Your task to perform on an android device: Open Chrome and go to the settings page Image 0: 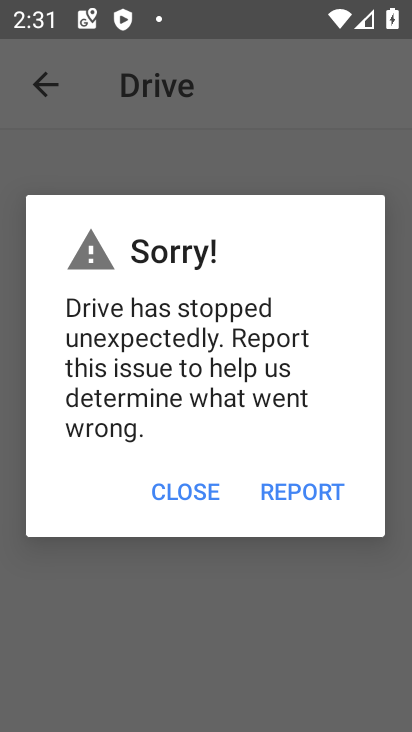
Step 0: press back button
Your task to perform on an android device: Open Chrome and go to the settings page Image 1: 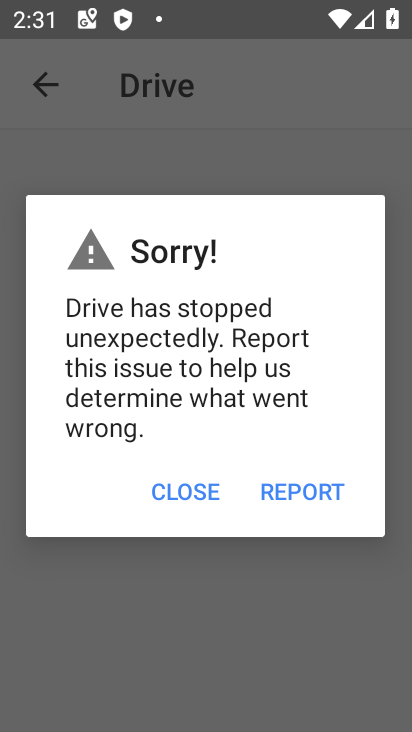
Step 1: press home button
Your task to perform on an android device: Open Chrome and go to the settings page Image 2: 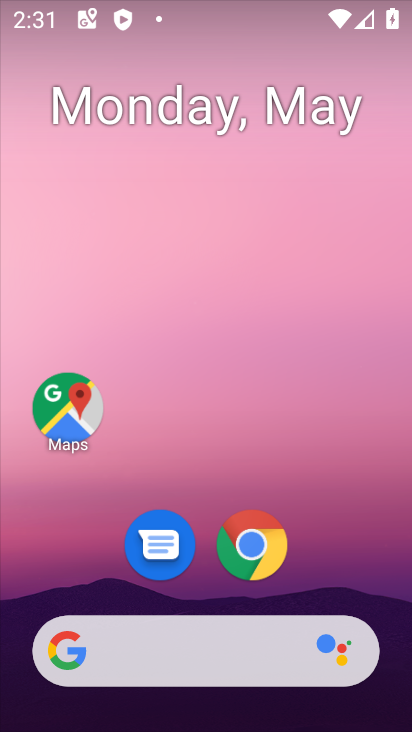
Step 2: click (269, 535)
Your task to perform on an android device: Open Chrome and go to the settings page Image 3: 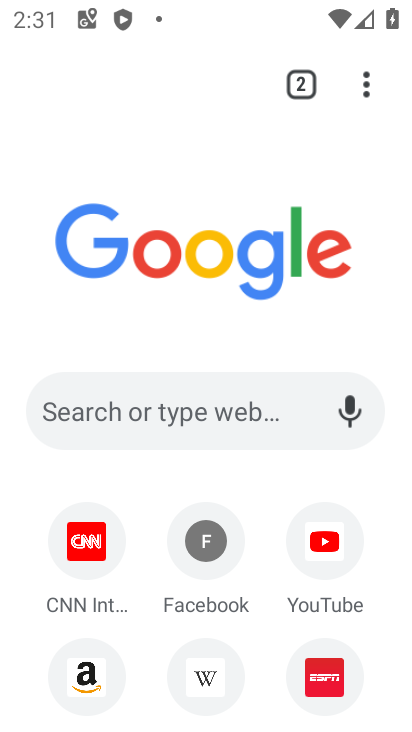
Step 3: click (371, 77)
Your task to perform on an android device: Open Chrome and go to the settings page Image 4: 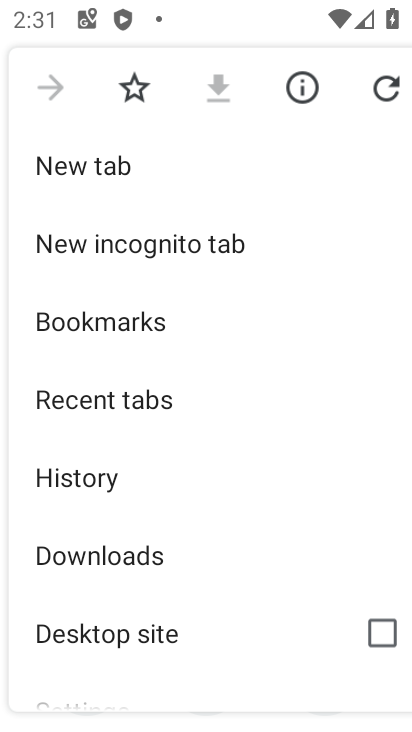
Step 4: drag from (183, 581) to (240, 179)
Your task to perform on an android device: Open Chrome and go to the settings page Image 5: 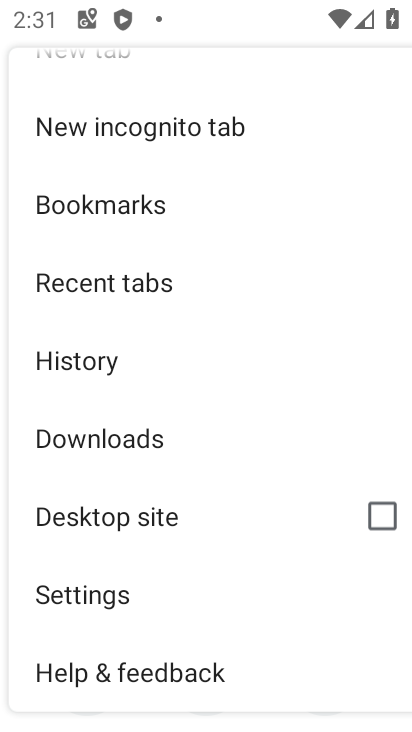
Step 5: click (109, 586)
Your task to perform on an android device: Open Chrome and go to the settings page Image 6: 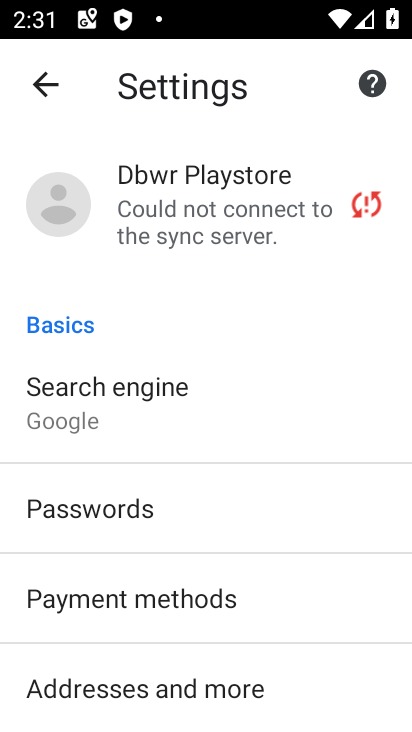
Step 6: task complete